Your task to perform on an android device: turn on sleep mode Image 0: 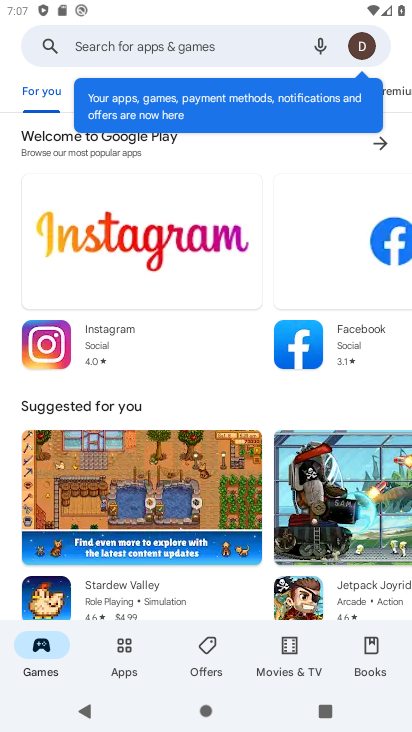
Step 0: press home button
Your task to perform on an android device: turn on sleep mode Image 1: 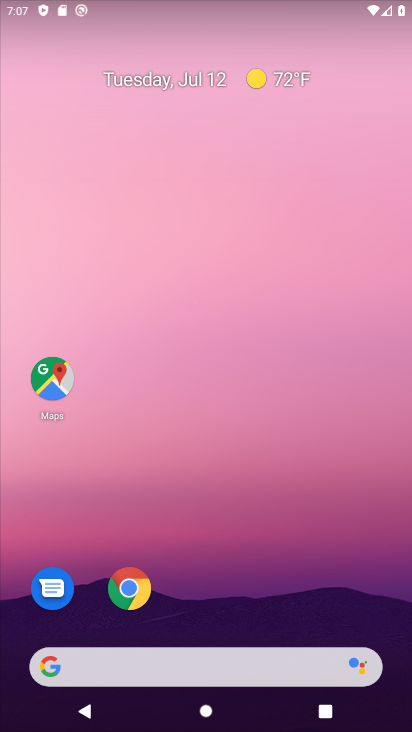
Step 1: drag from (275, 575) to (354, 0)
Your task to perform on an android device: turn on sleep mode Image 2: 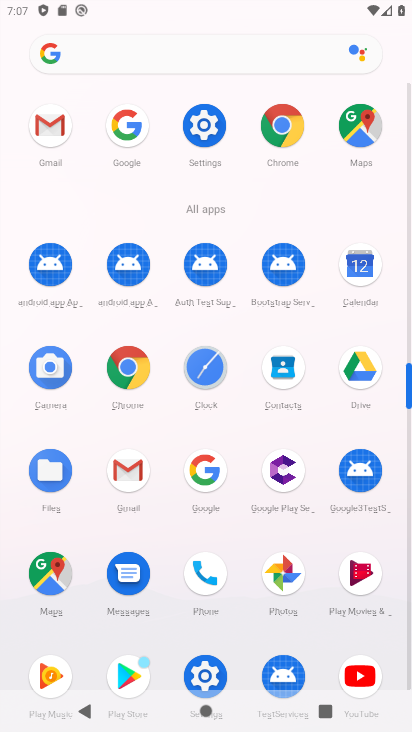
Step 2: click (217, 135)
Your task to perform on an android device: turn on sleep mode Image 3: 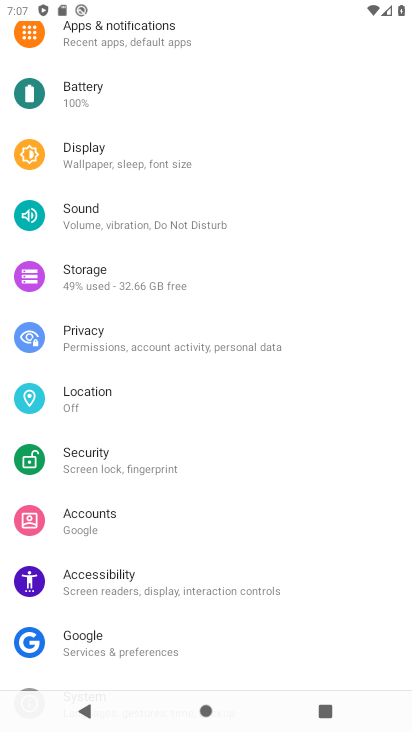
Step 3: click (130, 172)
Your task to perform on an android device: turn on sleep mode Image 4: 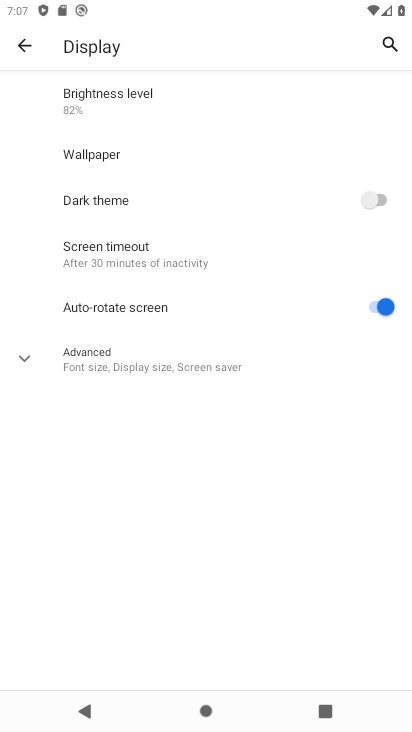
Step 4: click (133, 254)
Your task to perform on an android device: turn on sleep mode Image 5: 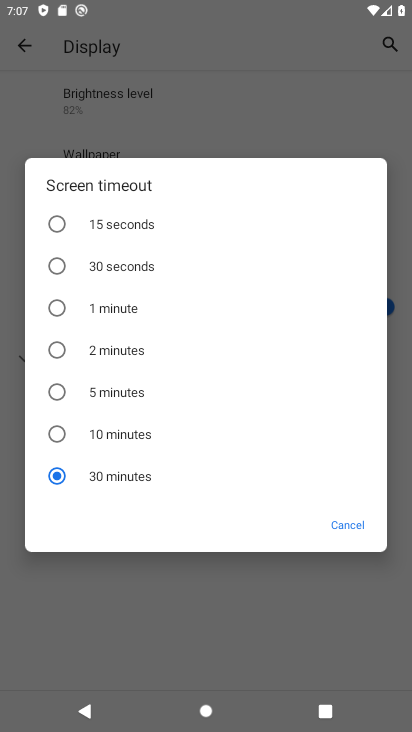
Step 5: task complete